Your task to perform on an android device: Show me productivity apps on the Play Store Image 0: 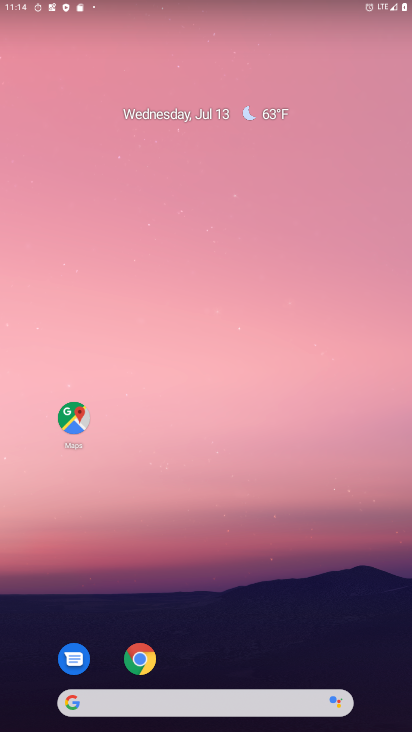
Step 0: drag from (356, 655) to (259, 141)
Your task to perform on an android device: Show me productivity apps on the Play Store Image 1: 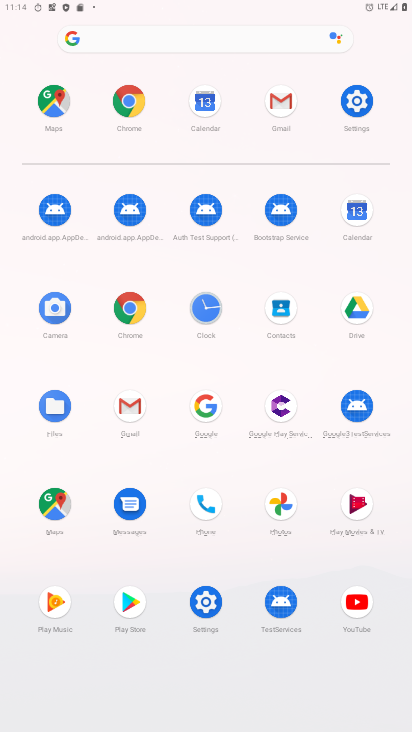
Step 1: click (132, 604)
Your task to perform on an android device: Show me productivity apps on the Play Store Image 2: 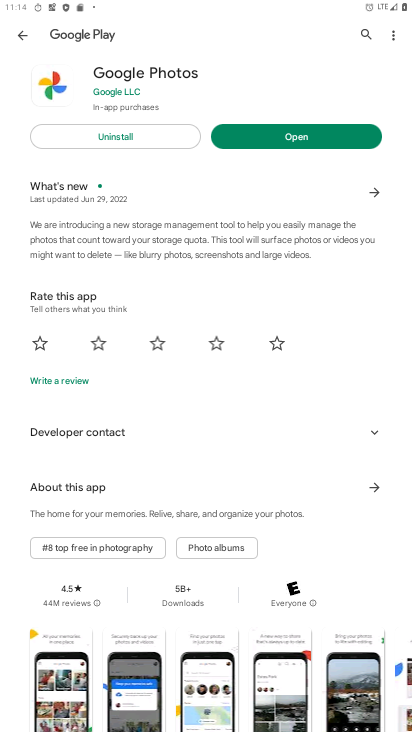
Step 2: click (22, 31)
Your task to perform on an android device: Show me productivity apps on the Play Store Image 3: 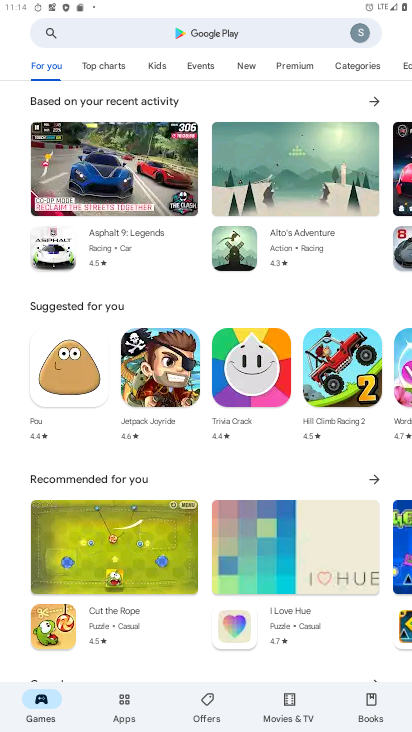
Step 3: click (127, 709)
Your task to perform on an android device: Show me productivity apps on the Play Store Image 4: 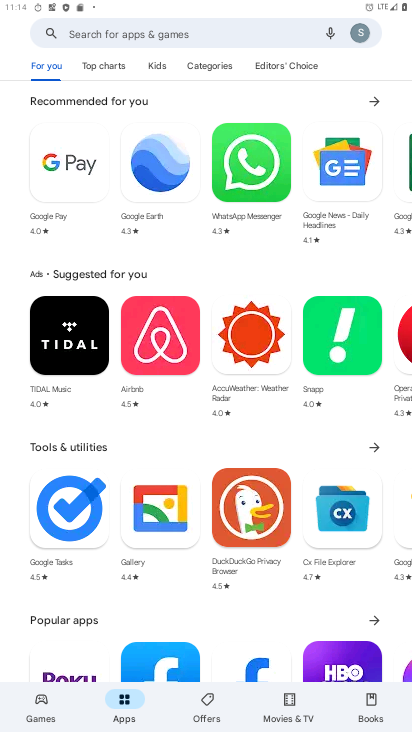
Step 4: drag from (210, 520) to (227, 187)
Your task to perform on an android device: Show me productivity apps on the Play Store Image 5: 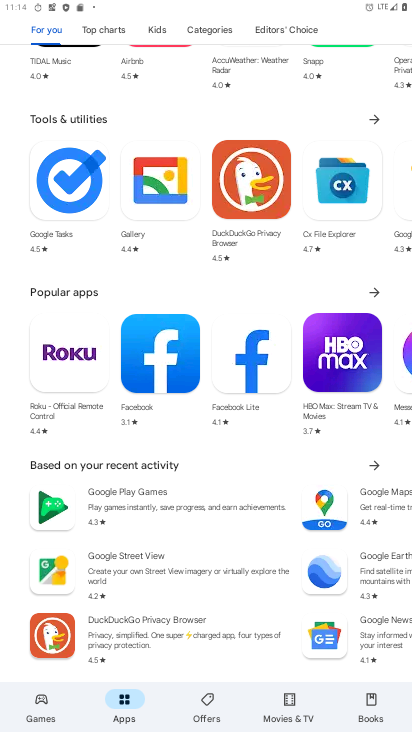
Step 5: drag from (169, 551) to (207, 204)
Your task to perform on an android device: Show me productivity apps on the Play Store Image 6: 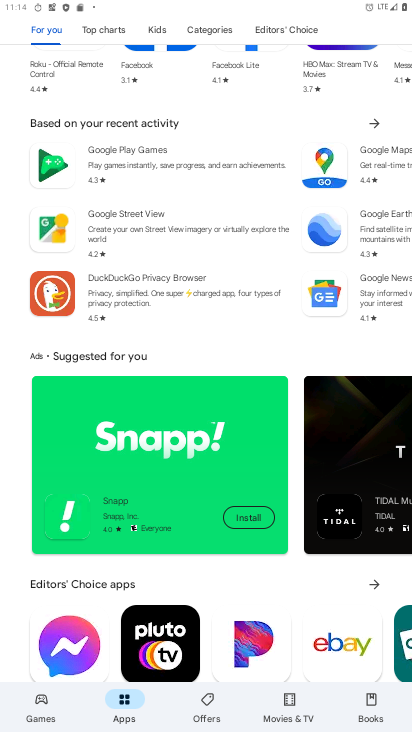
Step 6: drag from (220, 583) to (272, 198)
Your task to perform on an android device: Show me productivity apps on the Play Store Image 7: 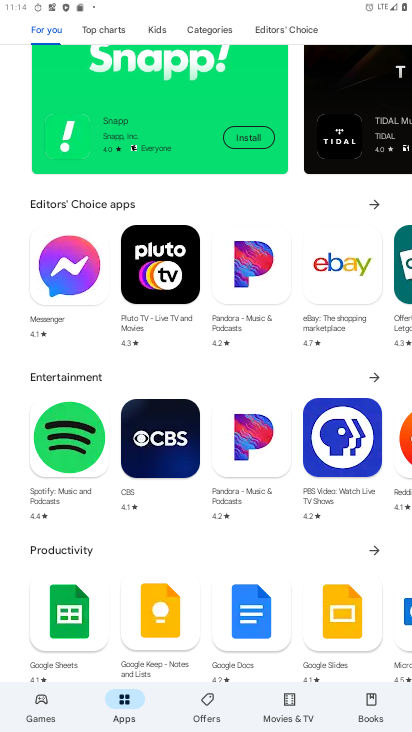
Step 7: drag from (284, 541) to (320, 269)
Your task to perform on an android device: Show me productivity apps on the Play Store Image 8: 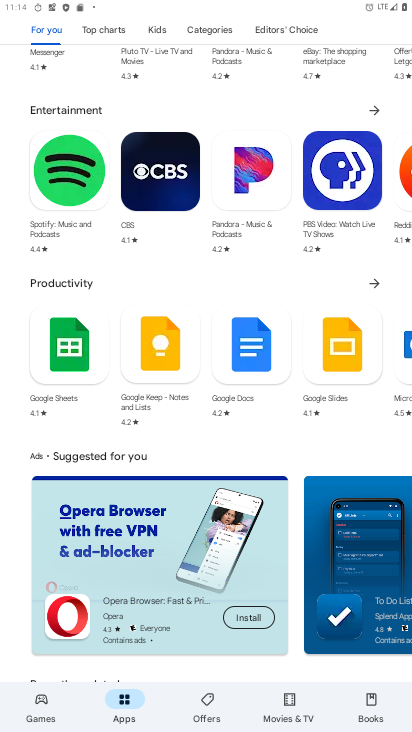
Step 8: click (335, 386)
Your task to perform on an android device: Show me productivity apps on the Play Store Image 9: 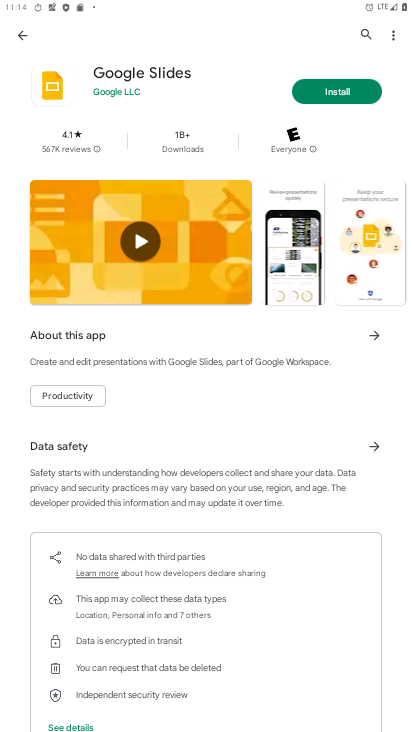
Step 9: click (25, 32)
Your task to perform on an android device: Show me productivity apps on the Play Store Image 10: 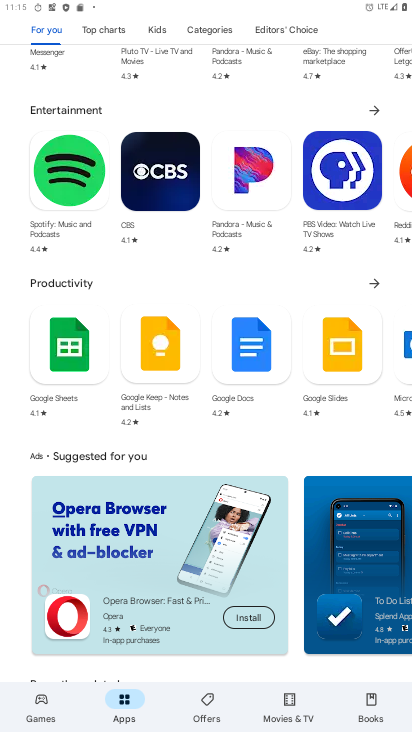
Step 10: task complete